Your task to perform on an android device: turn on the 24-hour format for clock Image 0: 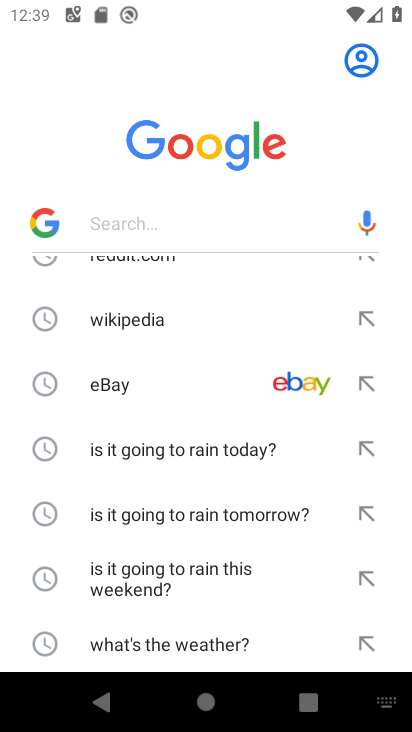
Step 0: press home button
Your task to perform on an android device: turn on the 24-hour format for clock Image 1: 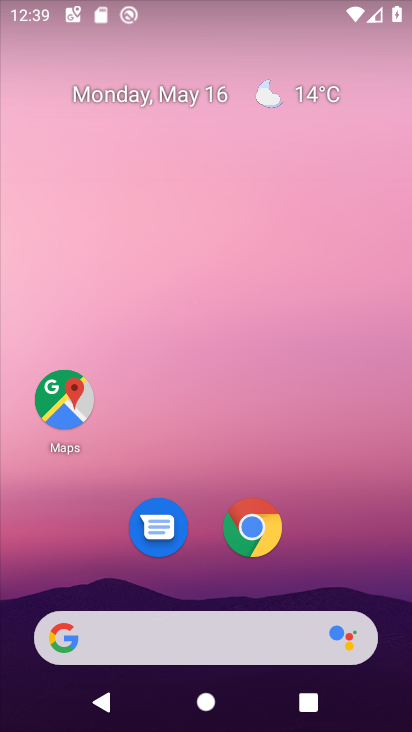
Step 1: drag from (237, 594) to (269, 33)
Your task to perform on an android device: turn on the 24-hour format for clock Image 2: 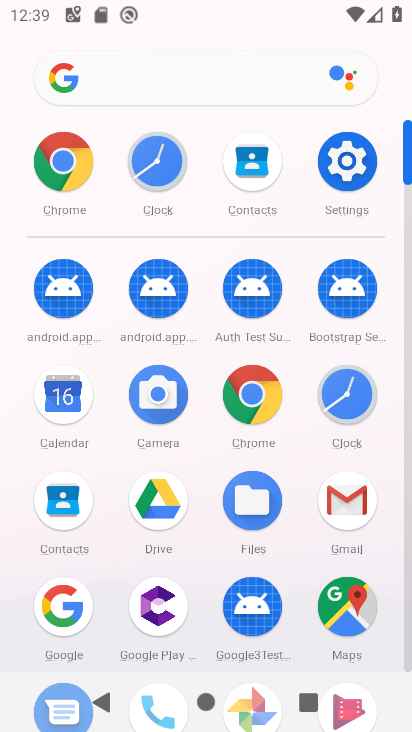
Step 2: click (350, 158)
Your task to perform on an android device: turn on the 24-hour format for clock Image 3: 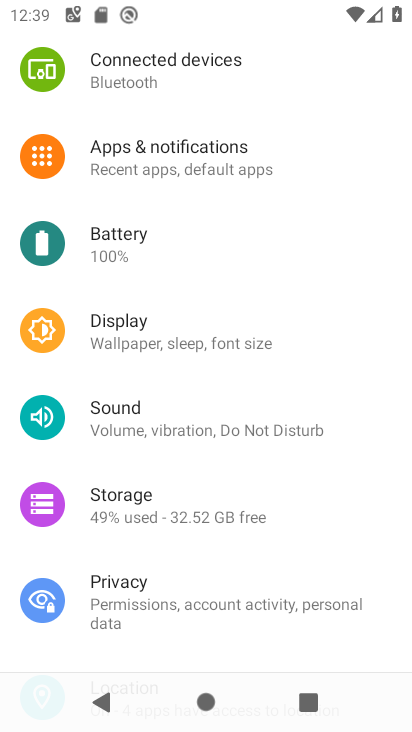
Step 3: drag from (165, 549) to (231, 195)
Your task to perform on an android device: turn on the 24-hour format for clock Image 4: 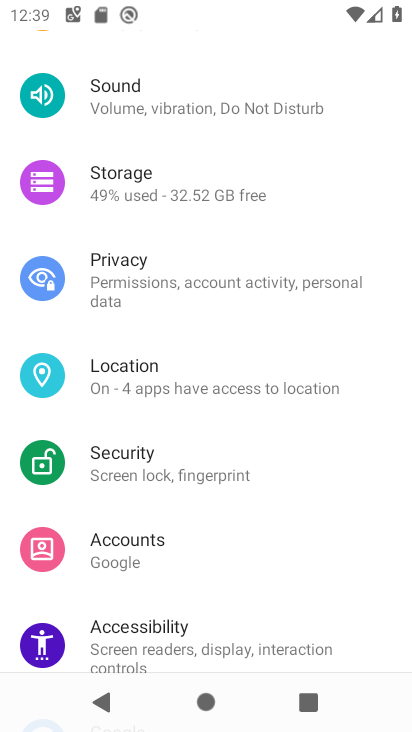
Step 4: drag from (173, 594) to (204, 365)
Your task to perform on an android device: turn on the 24-hour format for clock Image 5: 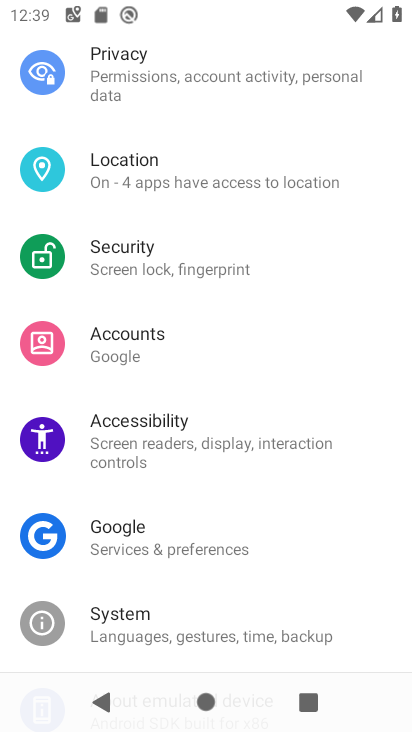
Step 5: click (154, 619)
Your task to perform on an android device: turn on the 24-hour format for clock Image 6: 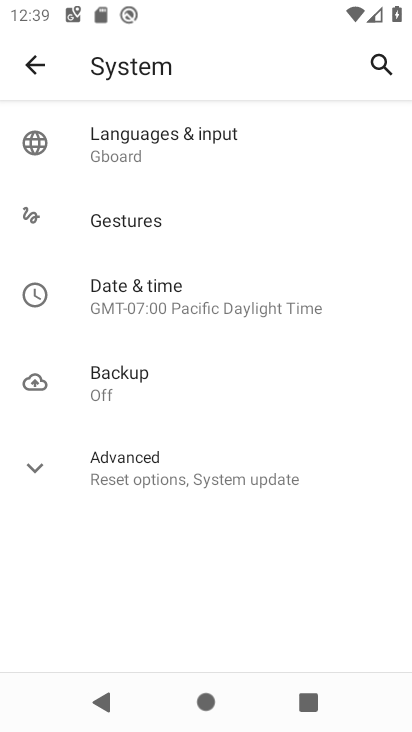
Step 6: click (203, 309)
Your task to perform on an android device: turn on the 24-hour format for clock Image 7: 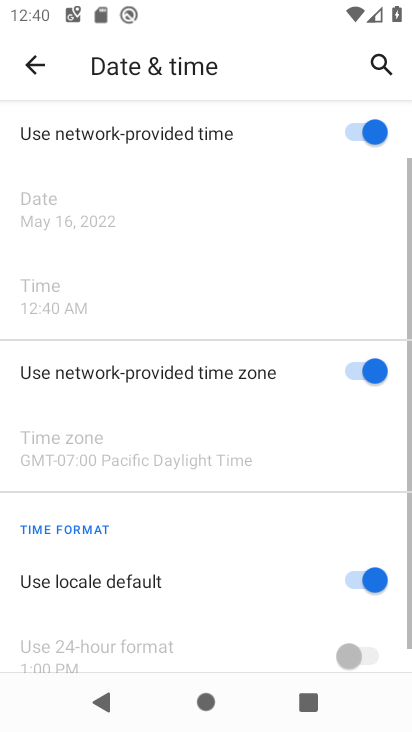
Step 7: drag from (178, 498) to (214, 205)
Your task to perform on an android device: turn on the 24-hour format for clock Image 8: 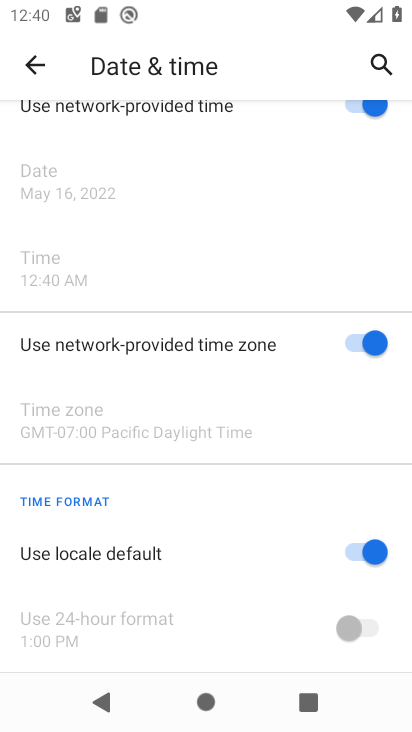
Step 8: click (352, 552)
Your task to perform on an android device: turn on the 24-hour format for clock Image 9: 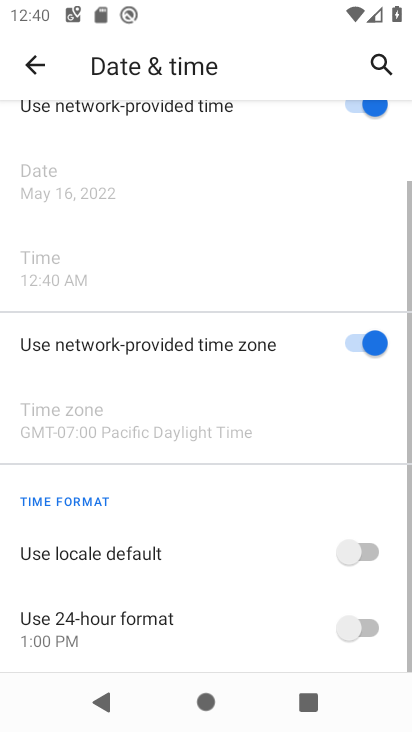
Step 9: click (377, 619)
Your task to perform on an android device: turn on the 24-hour format for clock Image 10: 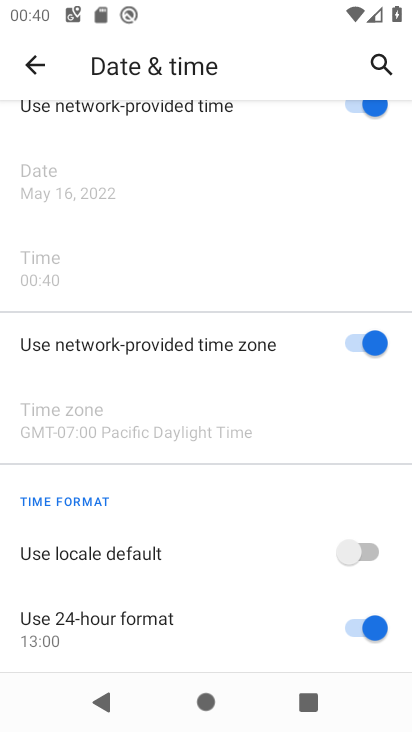
Step 10: task complete